Your task to perform on an android device: Turn on the flashlight Image 0: 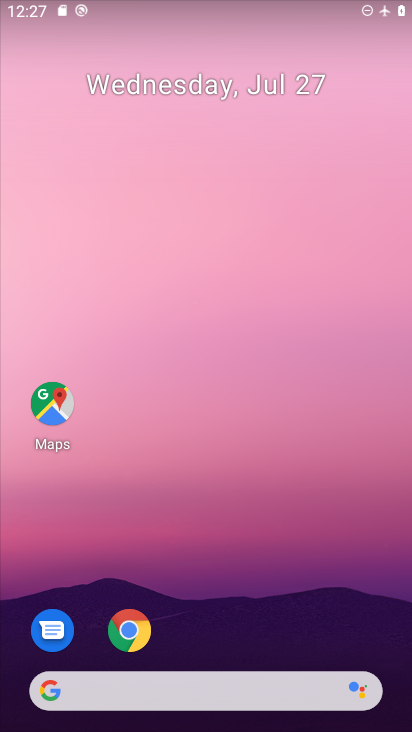
Step 0: drag from (198, 16) to (198, 458)
Your task to perform on an android device: Turn on the flashlight Image 1: 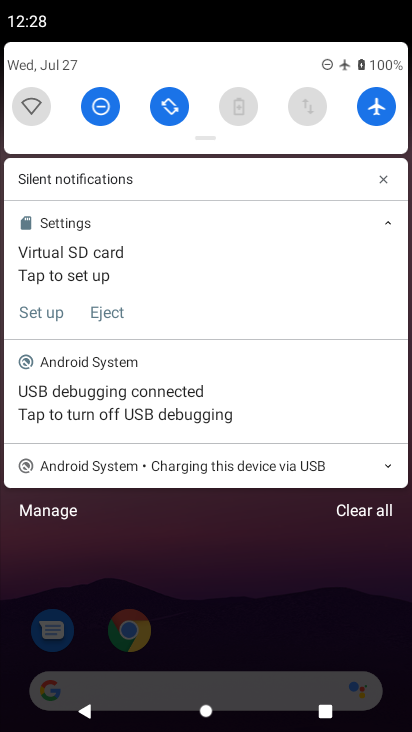
Step 1: drag from (209, 137) to (199, 387)
Your task to perform on an android device: Turn on the flashlight Image 2: 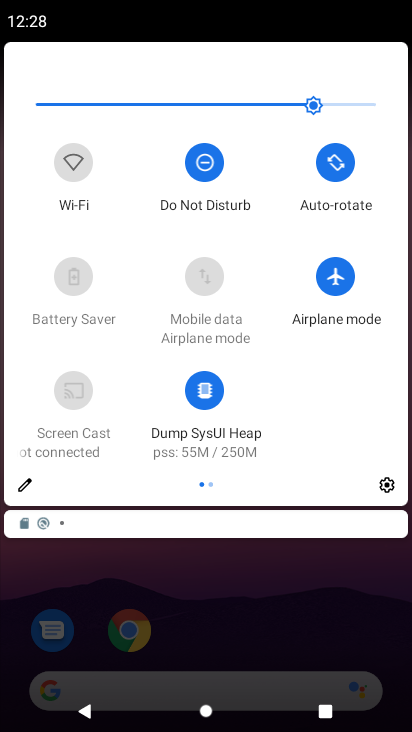
Step 2: click (24, 485)
Your task to perform on an android device: Turn on the flashlight Image 3: 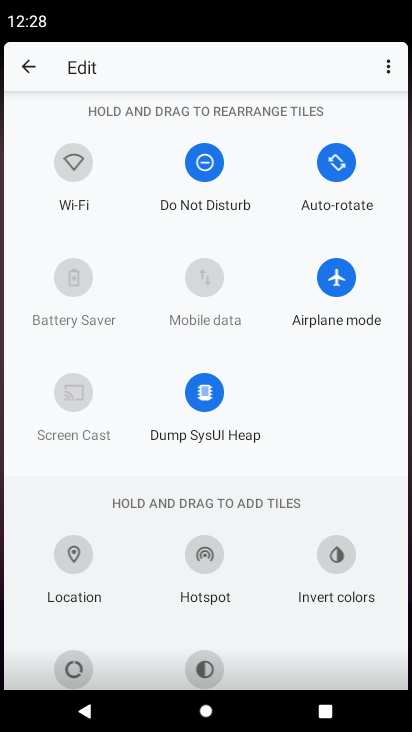
Step 3: task complete